Your task to perform on an android device: Go to sound settings Image 0: 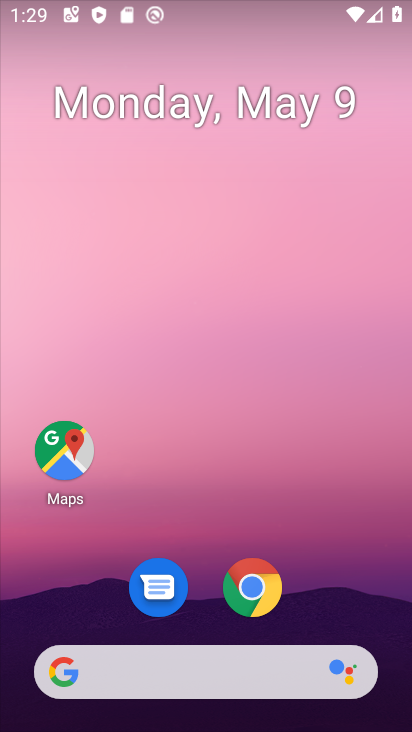
Step 0: drag from (190, 642) to (220, 111)
Your task to perform on an android device: Go to sound settings Image 1: 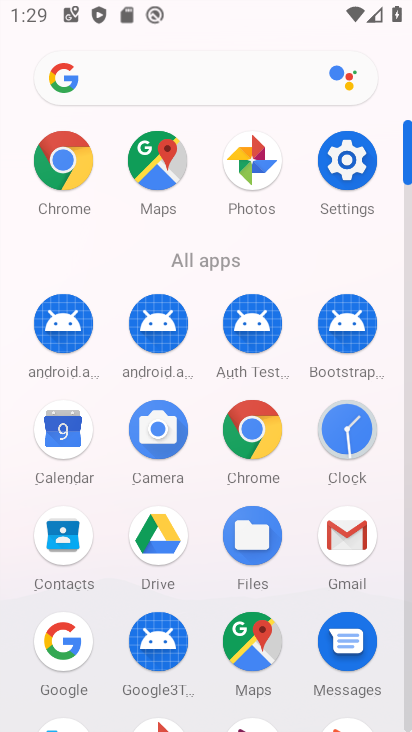
Step 1: click (338, 171)
Your task to perform on an android device: Go to sound settings Image 2: 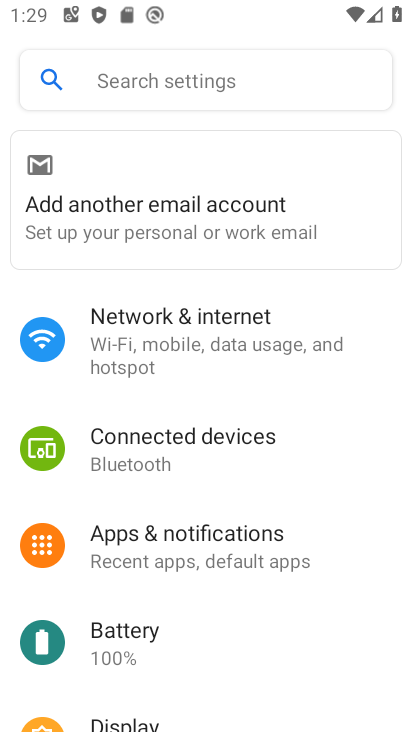
Step 2: drag from (191, 615) to (292, 297)
Your task to perform on an android device: Go to sound settings Image 3: 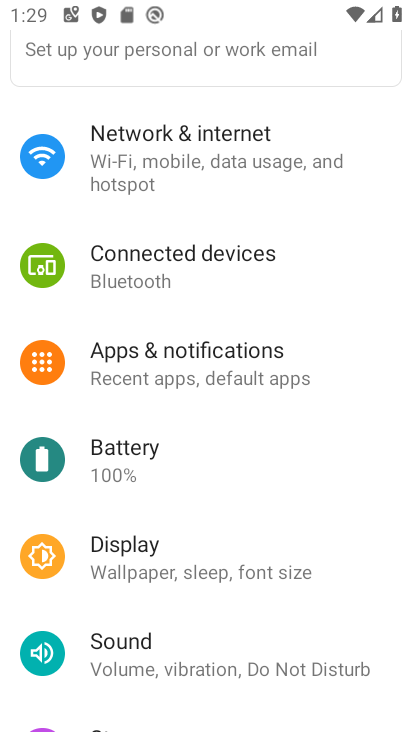
Step 3: click (211, 660)
Your task to perform on an android device: Go to sound settings Image 4: 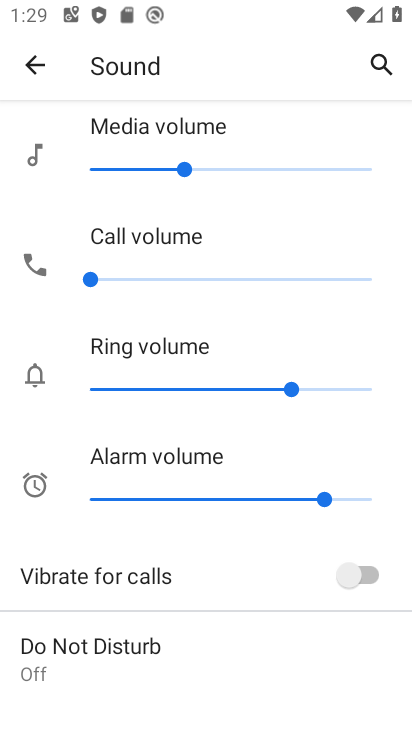
Step 4: task complete